Your task to perform on an android device: Open calendar and show me the first week of next month Image 0: 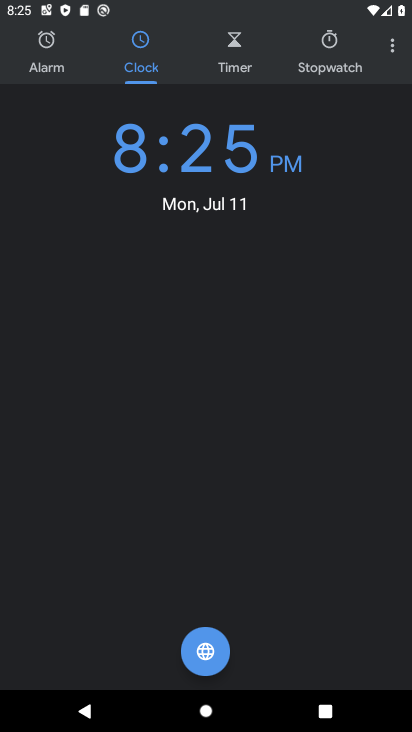
Step 0: press home button
Your task to perform on an android device: Open calendar and show me the first week of next month Image 1: 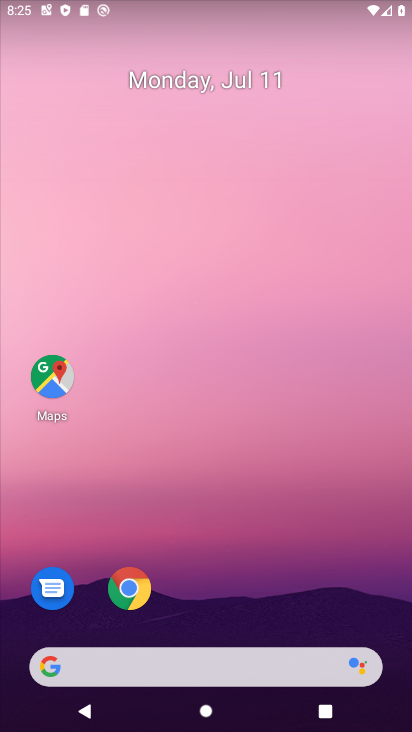
Step 1: drag from (271, 565) to (353, 27)
Your task to perform on an android device: Open calendar and show me the first week of next month Image 2: 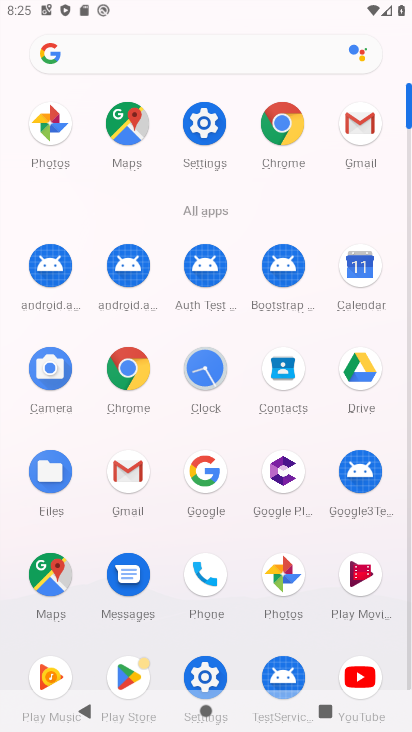
Step 2: click (356, 256)
Your task to perform on an android device: Open calendar and show me the first week of next month Image 3: 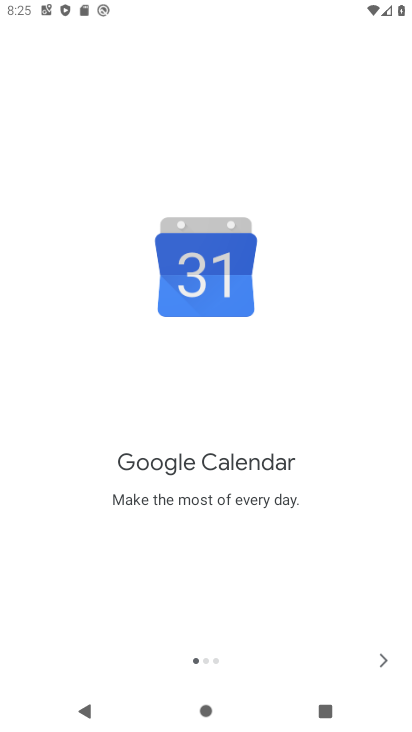
Step 3: click (391, 660)
Your task to perform on an android device: Open calendar and show me the first week of next month Image 4: 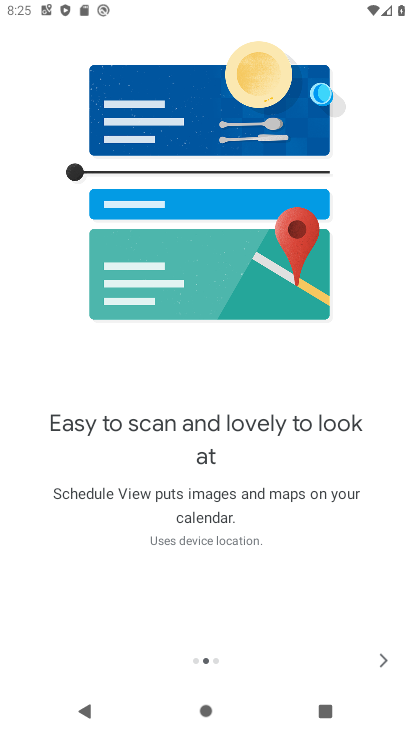
Step 4: click (391, 660)
Your task to perform on an android device: Open calendar and show me the first week of next month Image 5: 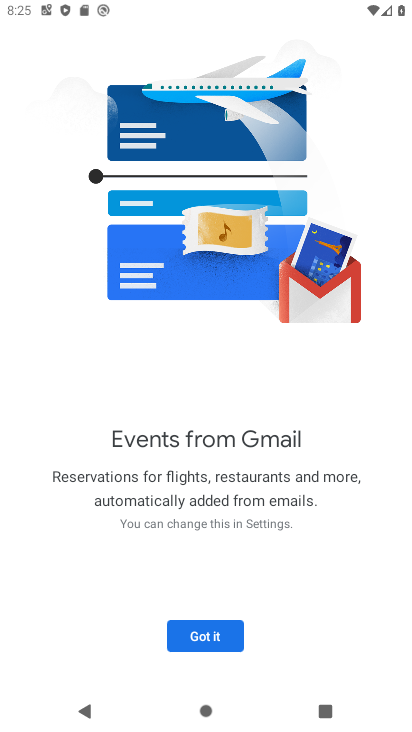
Step 5: click (199, 631)
Your task to perform on an android device: Open calendar and show me the first week of next month Image 6: 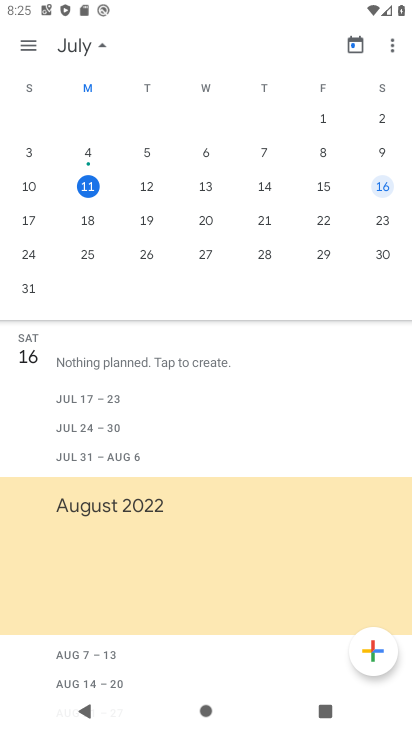
Step 6: drag from (403, 231) to (5, 131)
Your task to perform on an android device: Open calendar and show me the first week of next month Image 7: 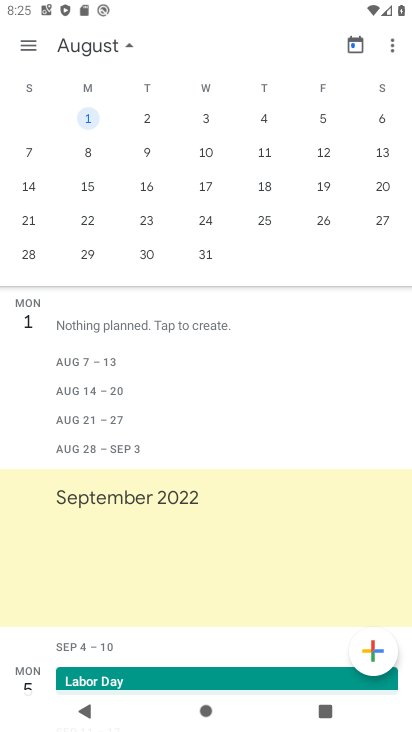
Step 7: click (87, 115)
Your task to perform on an android device: Open calendar and show me the first week of next month Image 8: 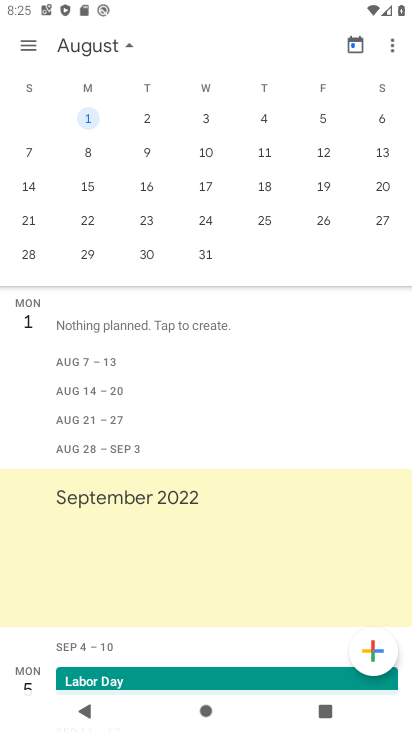
Step 8: task complete